Your task to perform on an android device: delete location history Image 0: 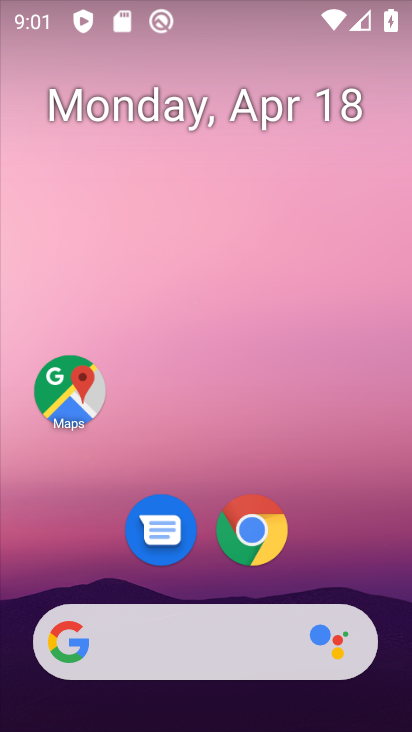
Step 0: click (66, 393)
Your task to perform on an android device: delete location history Image 1: 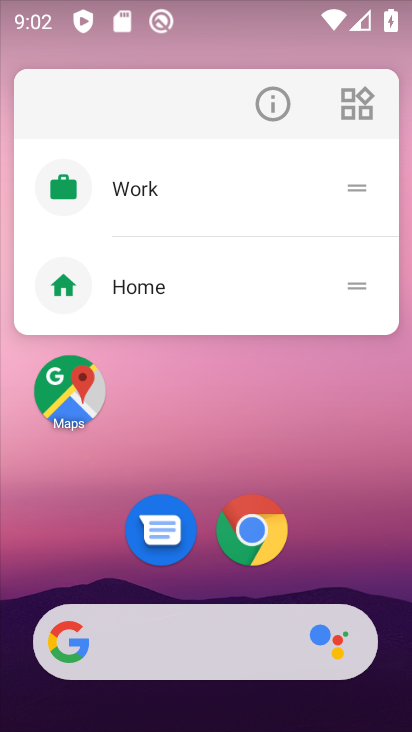
Step 1: click (69, 392)
Your task to perform on an android device: delete location history Image 2: 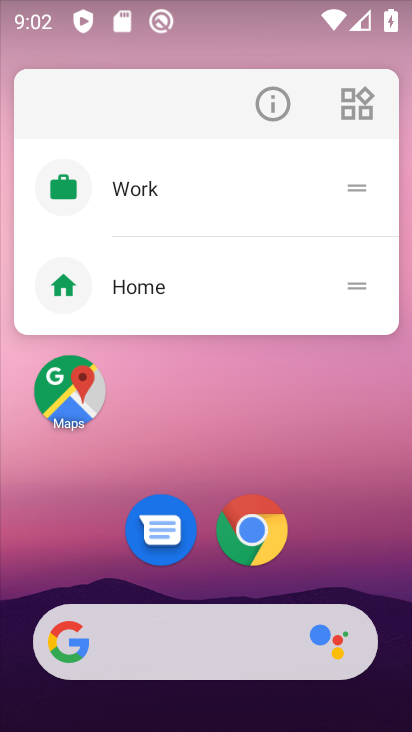
Step 2: click (72, 390)
Your task to perform on an android device: delete location history Image 3: 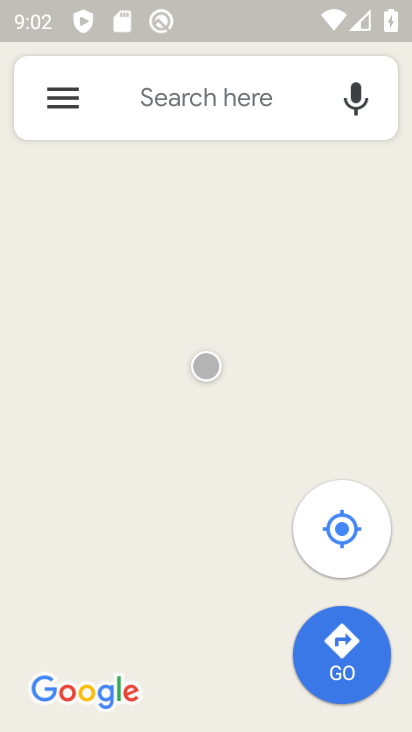
Step 3: click (65, 98)
Your task to perform on an android device: delete location history Image 4: 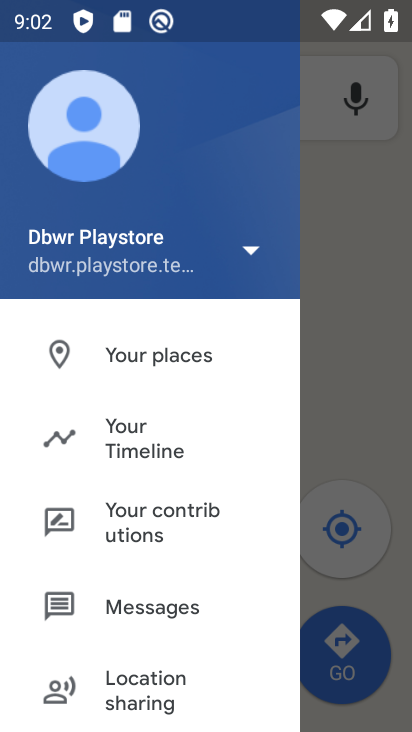
Step 4: click (119, 440)
Your task to perform on an android device: delete location history Image 5: 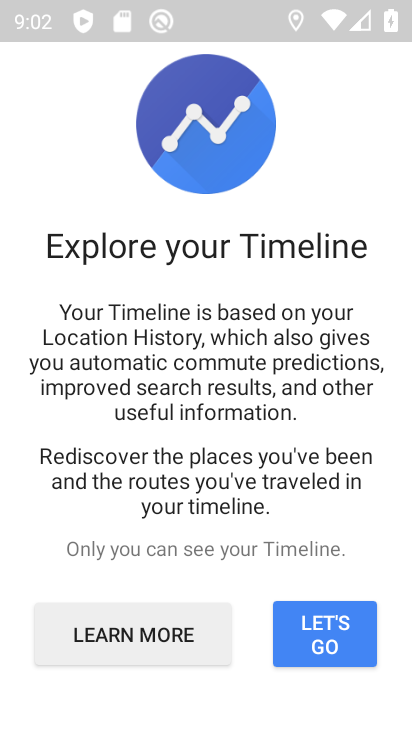
Step 5: click (321, 639)
Your task to perform on an android device: delete location history Image 6: 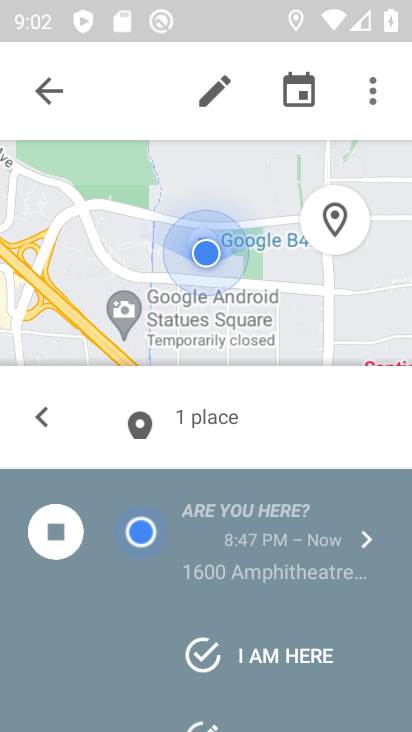
Step 6: click (376, 95)
Your task to perform on an android device: delete location history Image 7: 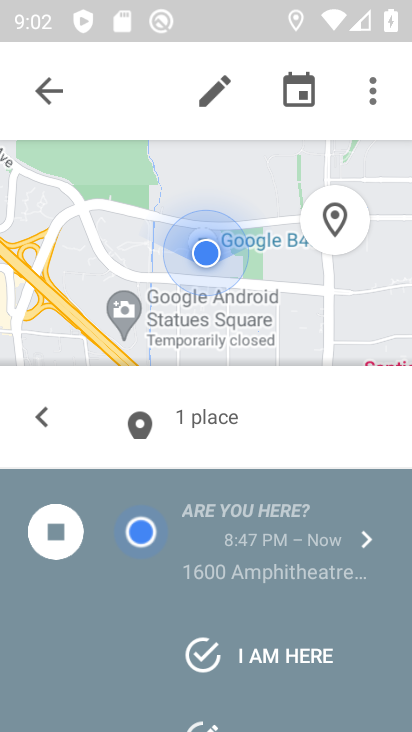
Step 7: click (368, 82)
Your task to perform on an android device: delete location history Image 8: 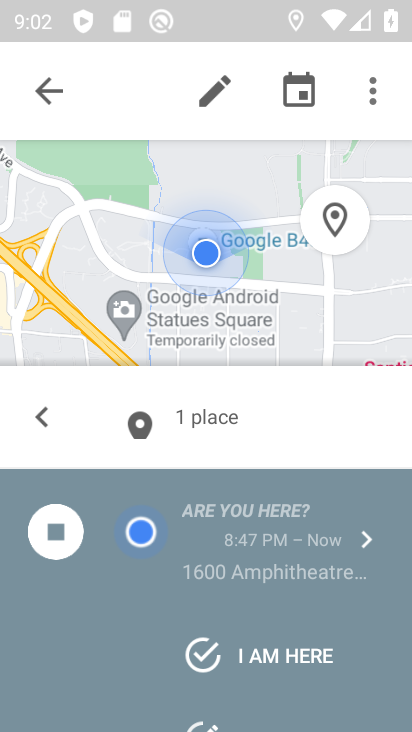
Step 8: click (377, 90)
Your task to perform on an android device: delete location history Image 9: 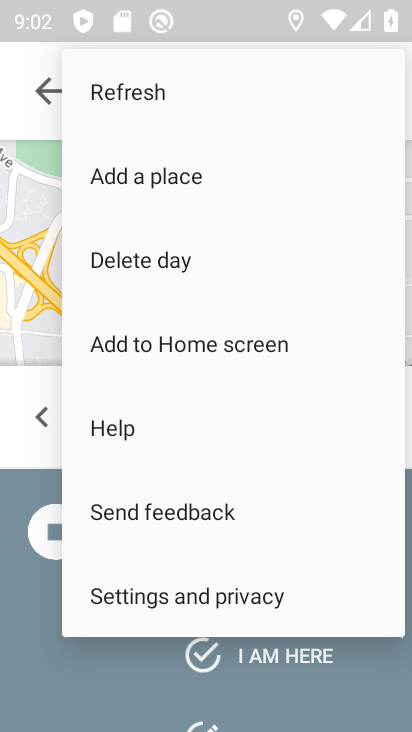
Step 9: click (165, 607)
Your task to perform on an android device: delete location history Image 10: 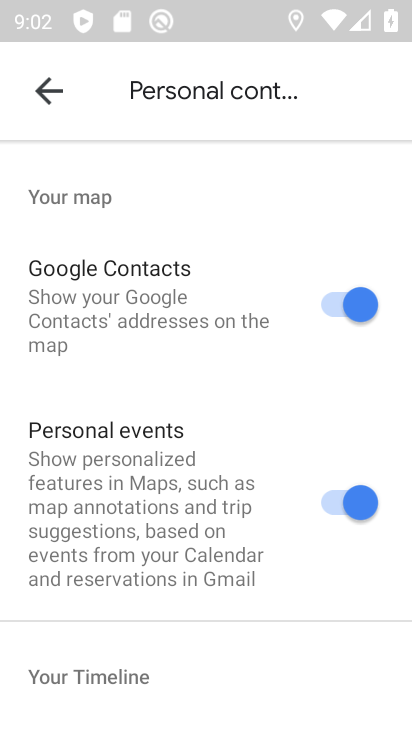
Step 10: drag from (179, 579) to (179, 164)
Your task to perform on an android device: delete location history Image 11: 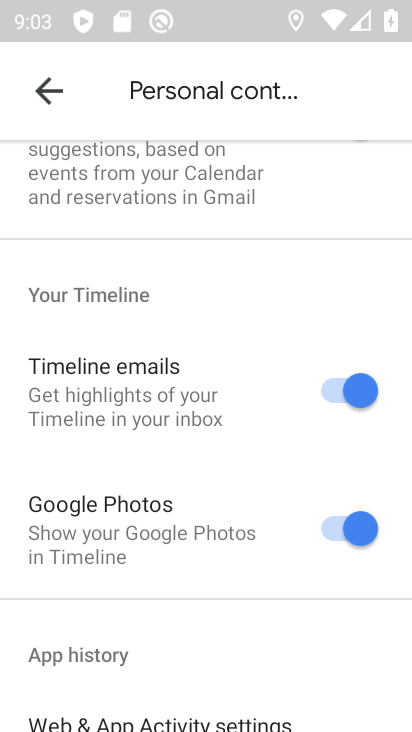
Step 11: drag from (175, 599) to (178, 236)
Your task to perform on an android device: delete location history Image 12: 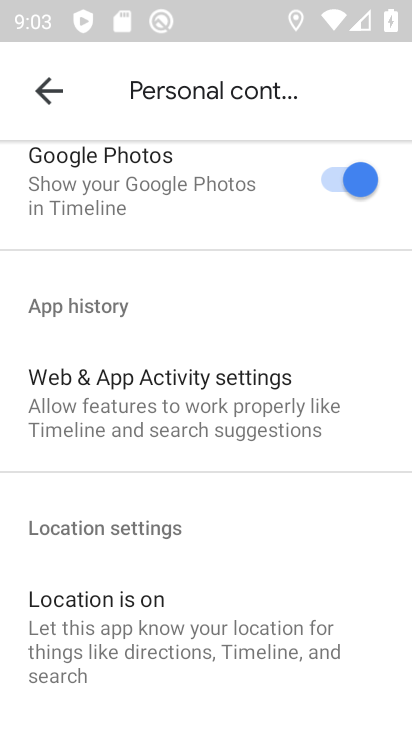
Step 12: drag from (182, 514) to (182, 200)
Your task to perform on an android device: delete location history Image 13: 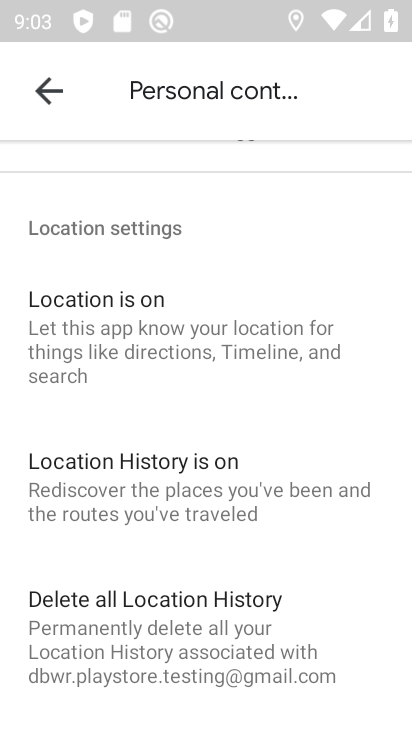
Step 13: drag from (179, 497) to (182, 236)
Your task to perform on an android device: delete location history Image 14: 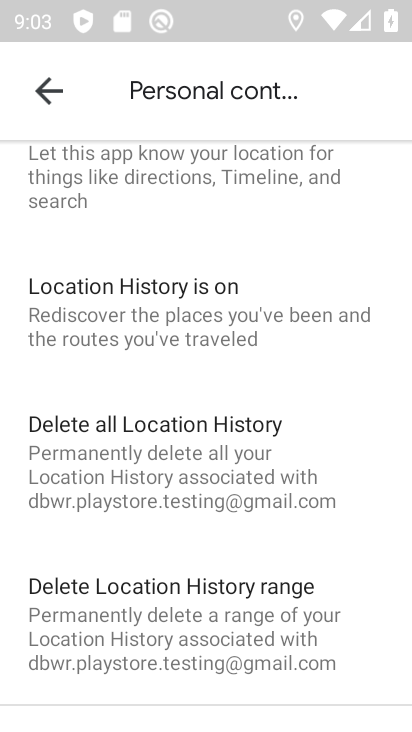
Step 14: click (124, 459)
Your task to perform on an android device: delete location history Image 15: 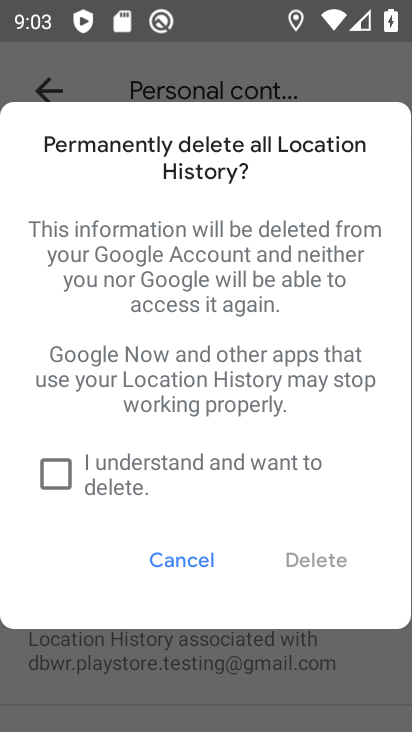
Step 15: click (60, 467)
Your task to perform on an android device: delete location history Image 16: 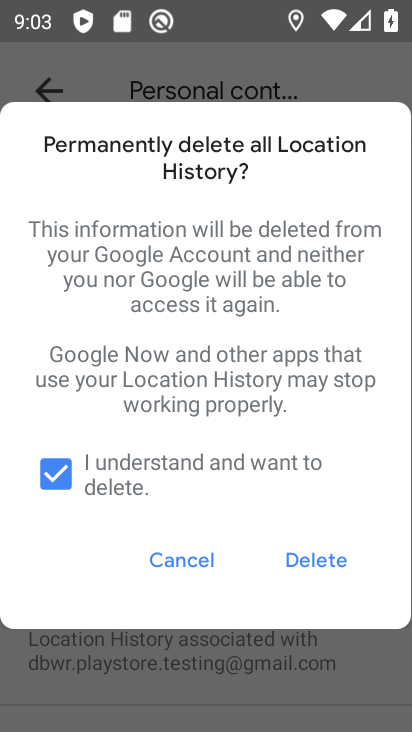
Step 16: click (303, 568)
Your task to perform on an android device: delete location history Image 17: 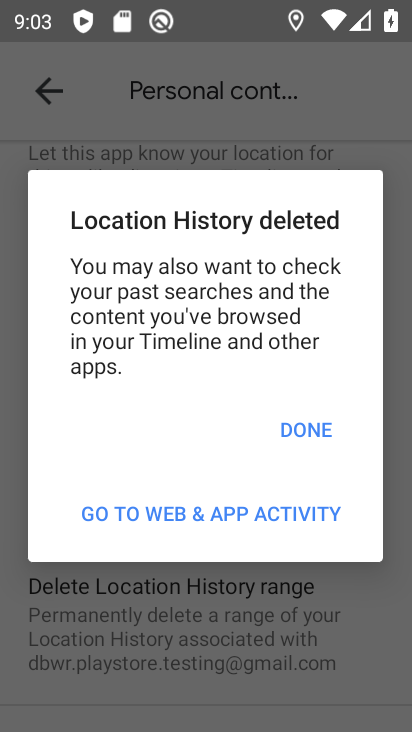
Step 17: click (293, 429)
Your task to perform on an android device: delete location history Image 18: 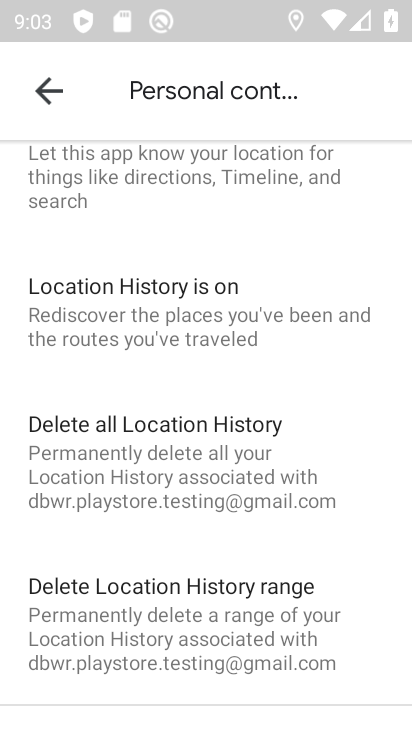
Step 18: task complete